Your task to perform on an android device: turn off improve location accuracy Image 0: 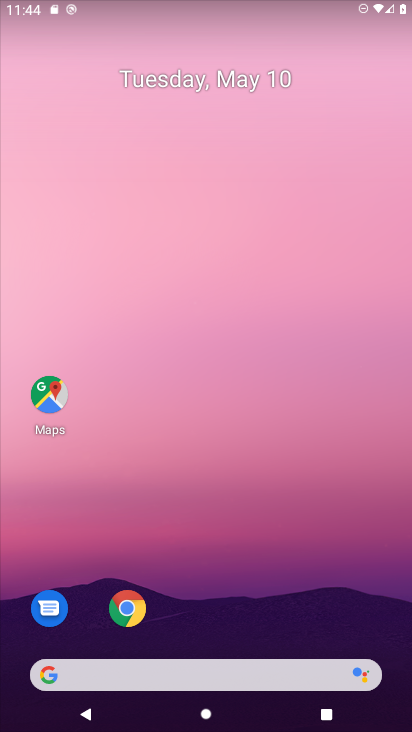
Step 0: drag from (258, 585) to (259, 80)
Your task to perform on an android device: turn off improve location accuracy Image 1: 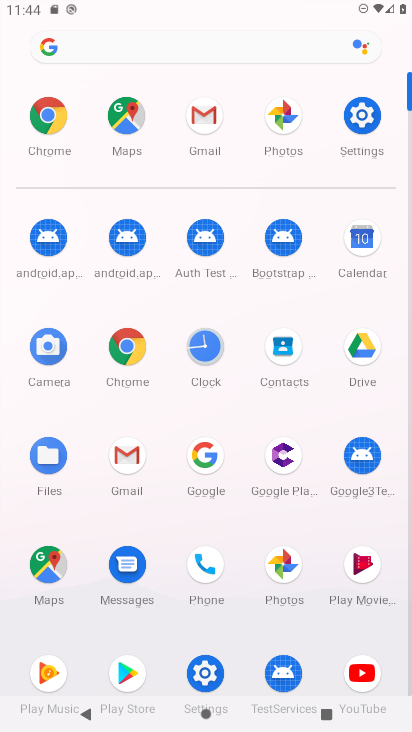
Step 1: click (367, 123)
Your task to perform on an android device: turn off improve location accuracy Image 2: 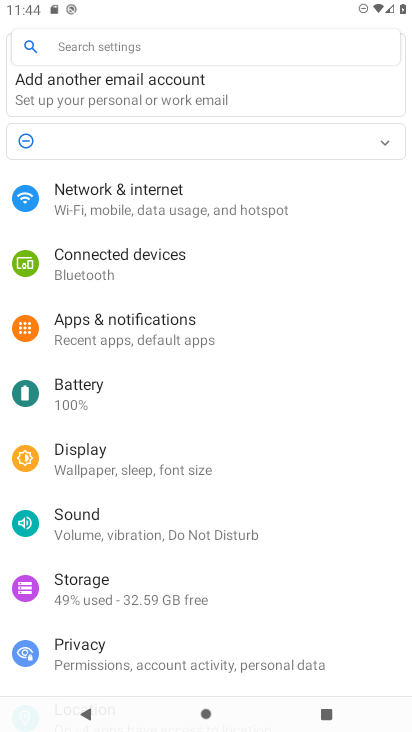
Step 2: drag from (232, 518) to (264, 174)
Your task to perform on an android device: turn off improve location accuracy Image 3: 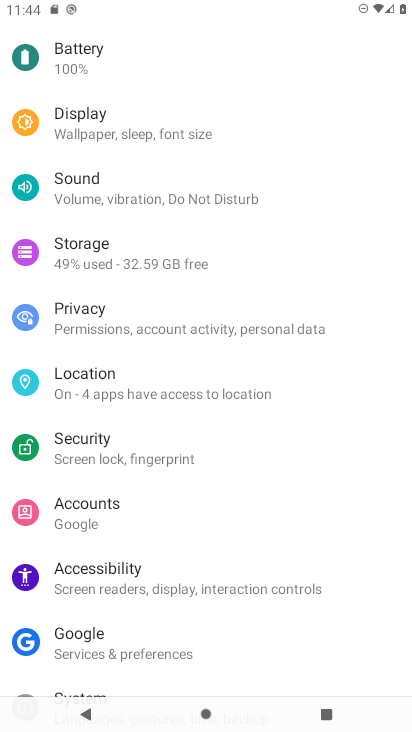
Step 3: click (185, 380)
Your task to perform on an android device: turn off improve location accuracy Image 4: 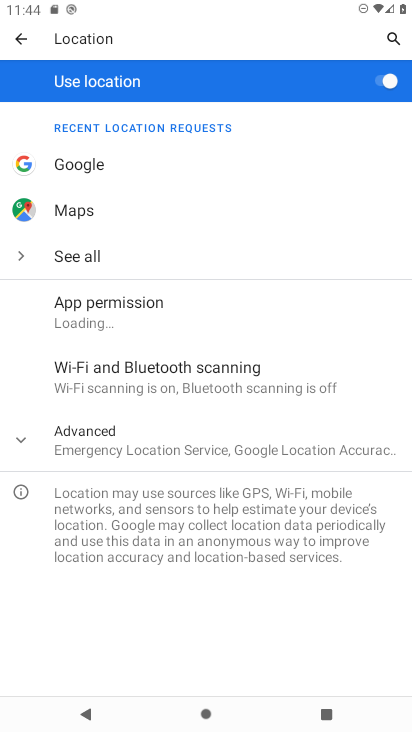
Step 4: click (16, 431)
Your task to perform on an android device: turn off improve location accuracy Image 5: 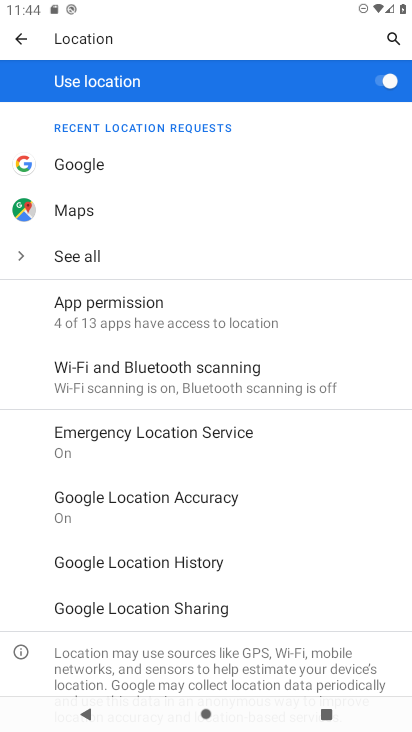
Step 5: click (176, 505)
Your task to perform on an android device: turn off improve location accuracy Image 6: 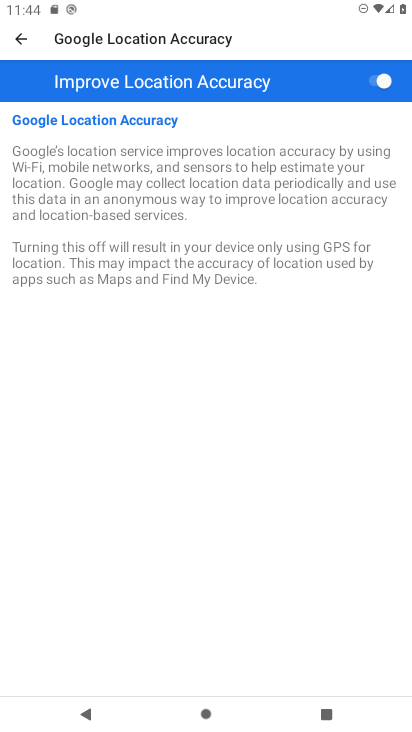
Step 6: click (377, 84)
Your task to perform on an android device: turn off improve location accuracy Image 7: 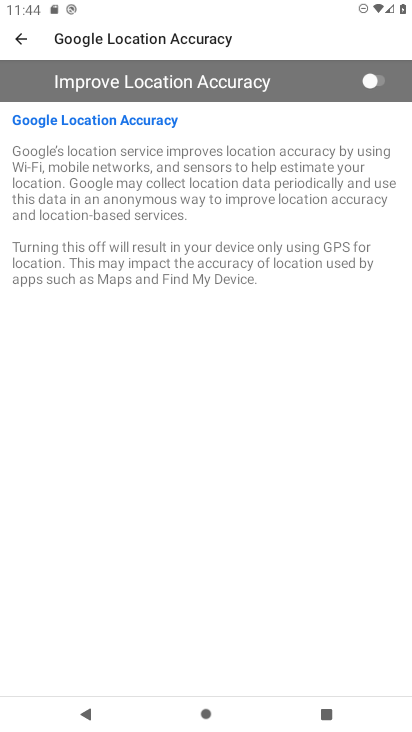
Step 7: task complete